Your task to perform on an android device: Open Google Chrome Image 0: 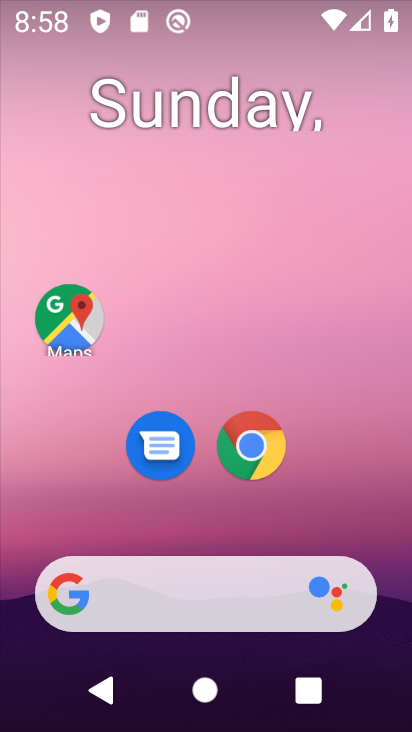
Step 0: click (254, 443)
Your task to perform on an android device: Open Google Chrome Image 1: 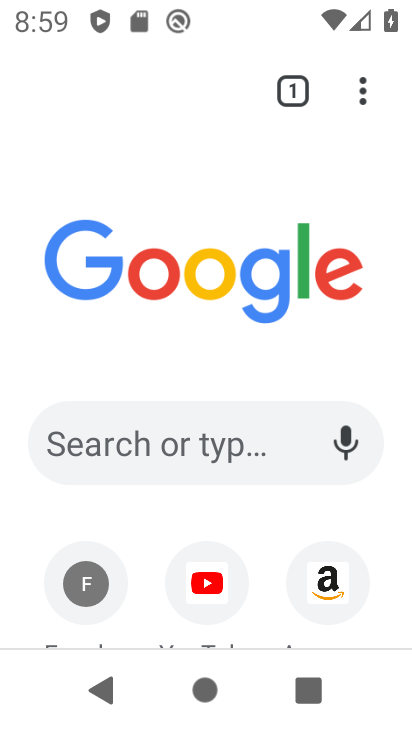
Step 1: task complete